Your task to perform on an android device: change the clock display to show seconds Image 0: 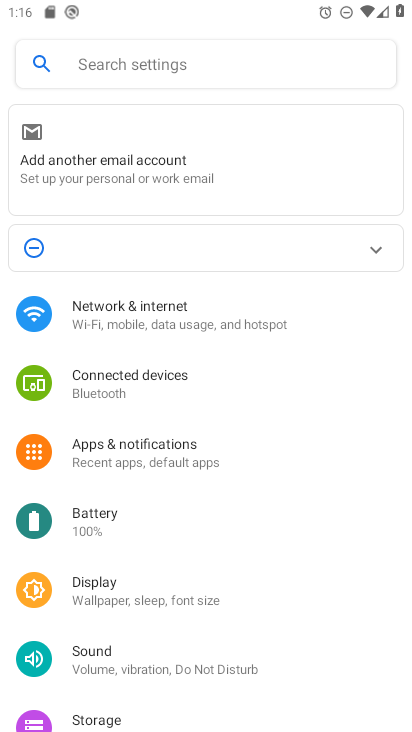
Step 0: press home button
Your task to perform on an android device: change the clock display to show seconds Image 1: 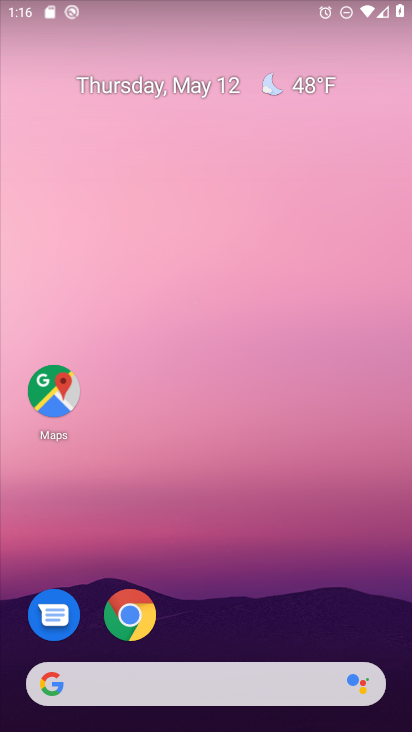
Step 1: drag from (264, 641) to (294, 79)
Your task to perform on an android device: change the clock display to show seconds Image 2: 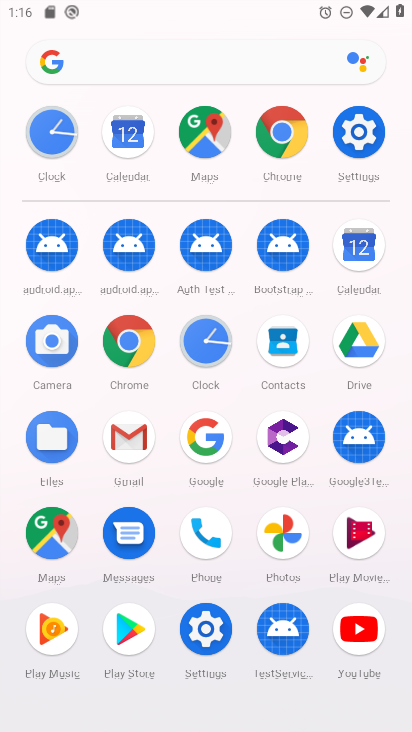
Step 2: click (352, 146)
Your task to perform on an android device: change the clock display to show seconds Image 3: 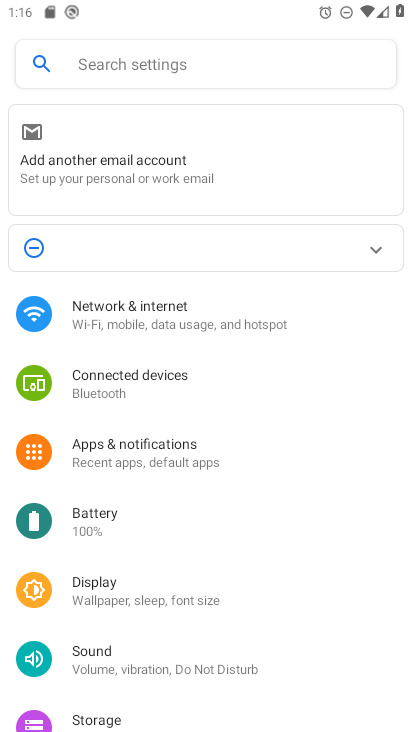
Step 3: press home button
Your task to perform on an android device: change the clock display to show seconds Image 4: 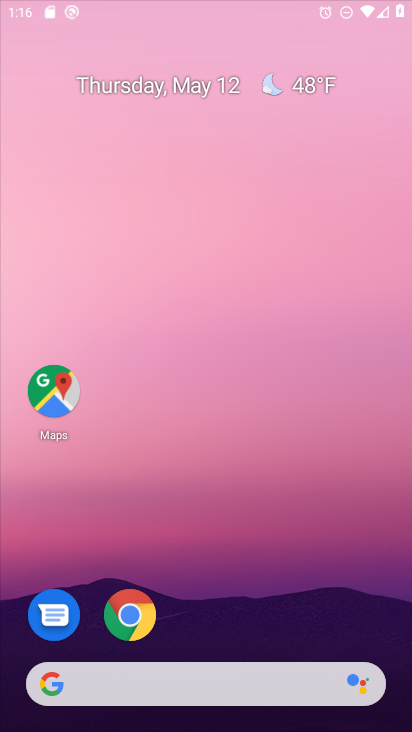
Step 4: drag from (297, 691) to (345, 151)
Your task to perform on an android device: change the clock display to show seconds Image 5: 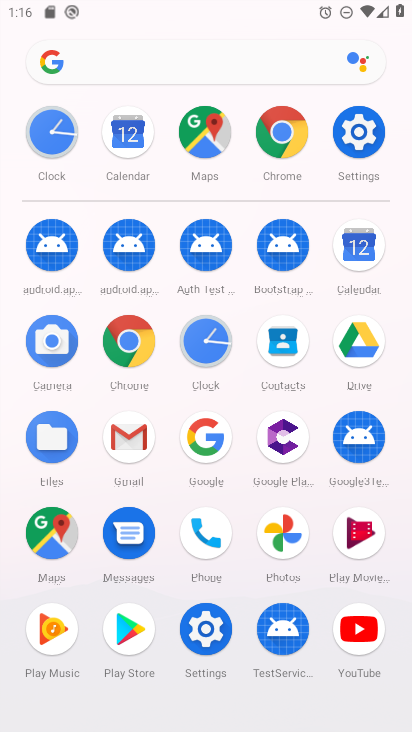
Step 5: click (196, 356)
Your task to perform on an android device: change the clock display to show seconds Image 6: 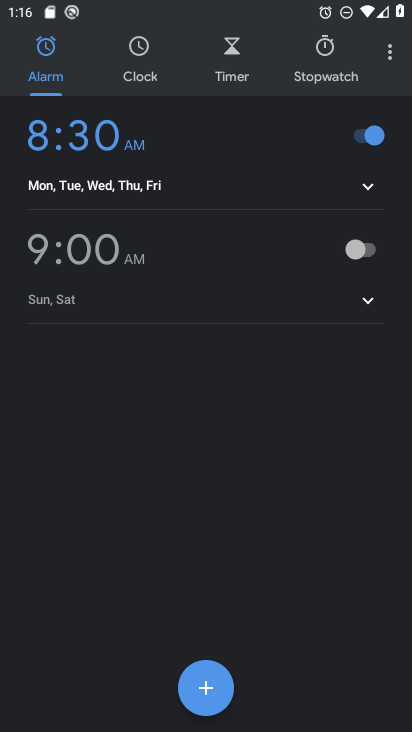
Step 6: click (389, 56)
Your task to perform on an android device: change the clock display to show seconds Image 7: 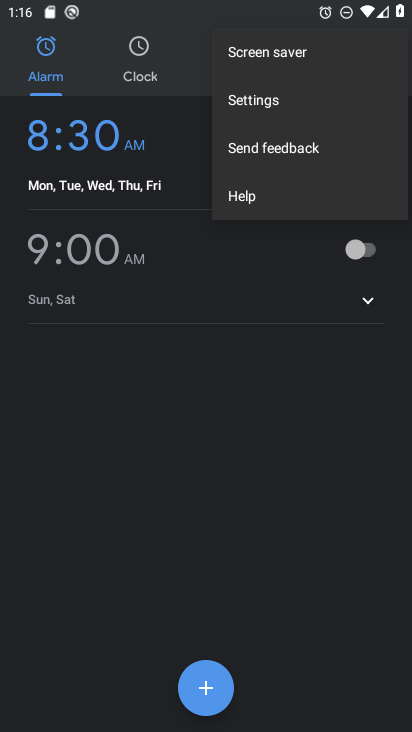
Step 7: click (280, 106)
Your task to perform on an android device: change the clock display to show seconds Image 8: 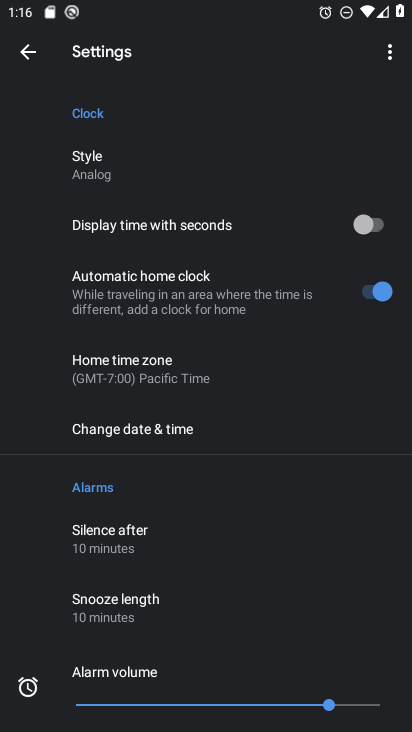
Step 8: click (377, 224)
Your task to perform on an android device: change the clock display to show seconds Image 9: 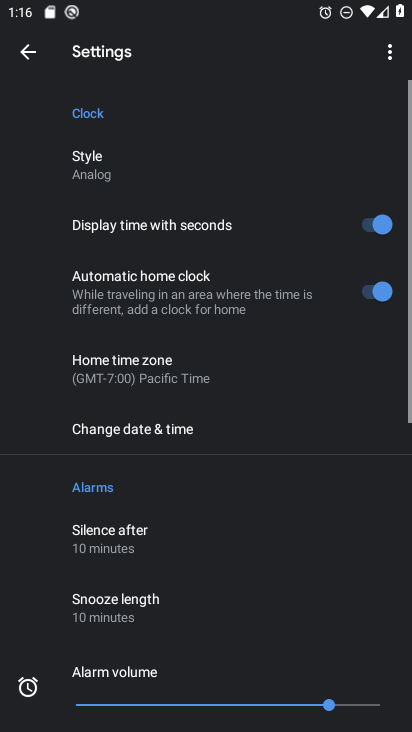
Step 9: task complete